Your task to perform on an android device: Go to privacy settings Image 0: 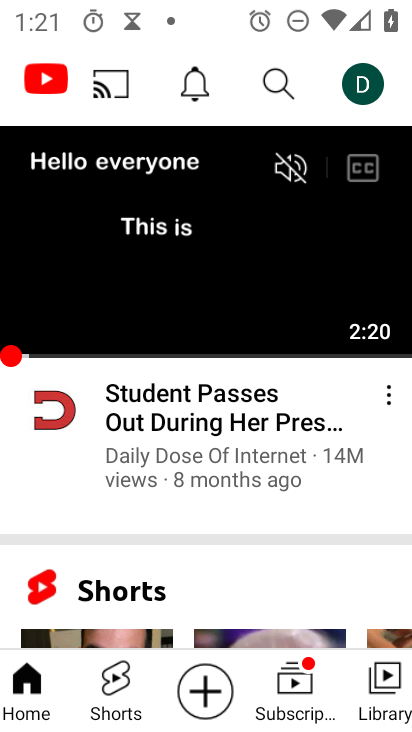
Step 0: press home button
Your task to perform on an android device: Go to privacy settings Image 1: 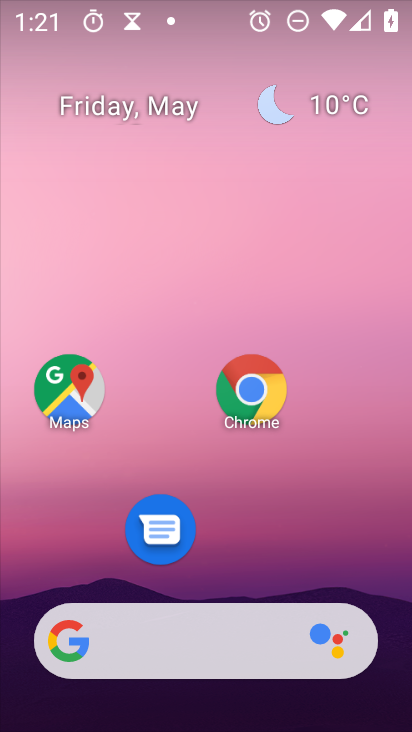
Step 1: drag from (231, 174) to (241, 97)
Your task to perform on an android device: Go to privacy settings Image 2: 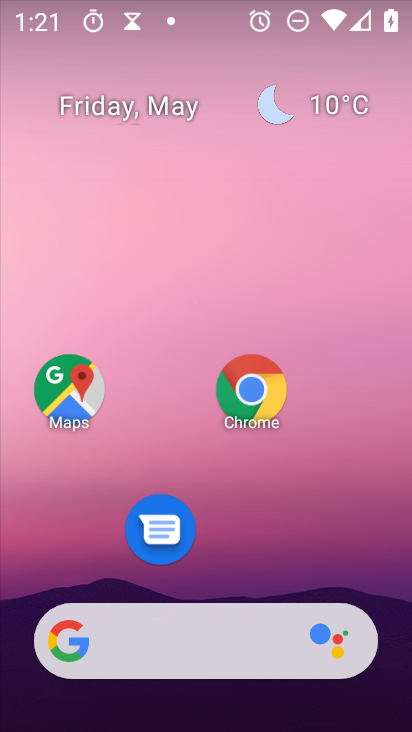
Step 2: drag from (197, 640) to (266, 89)
Your task to perform on an android device: Go to privacy settings Image 3: 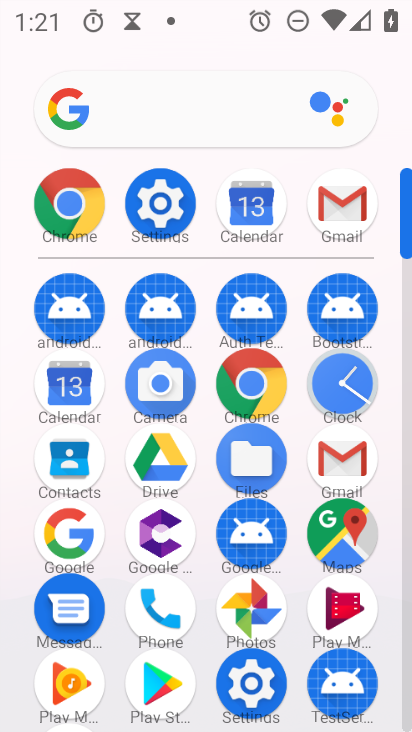
Step 3: click (156, 212)
Your task to perform on an android device: Go to privacy settings Image 4: 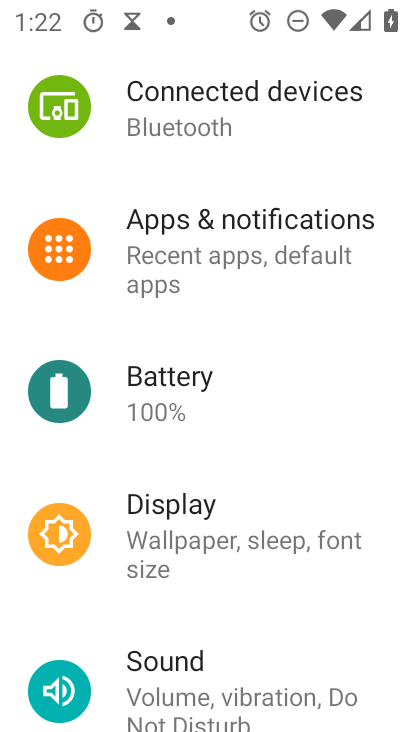
Step 4: drag from (269, 175) to (283, 528)
Your task to perform on an android device: Go to privacy settings Image 5: 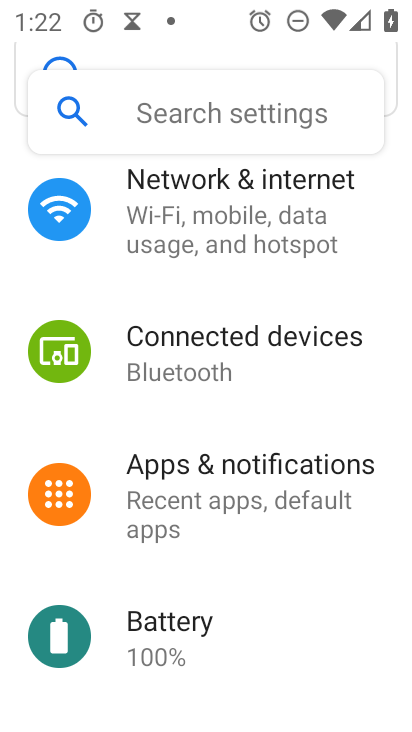
Step 5: drag from (202, 604) to (295, 110)
Your task to perform on an android device: Go to privacy settings Image 6: 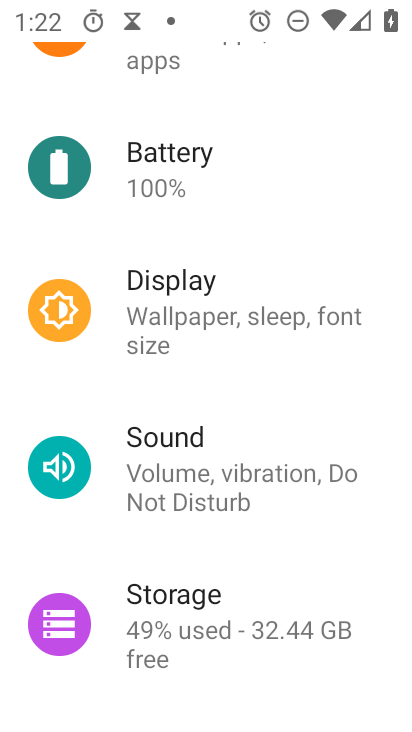
Step 6: drag from (180, 670) to (301, 141)
Your task to perform on an android device: Go to privacy settings Image 7: 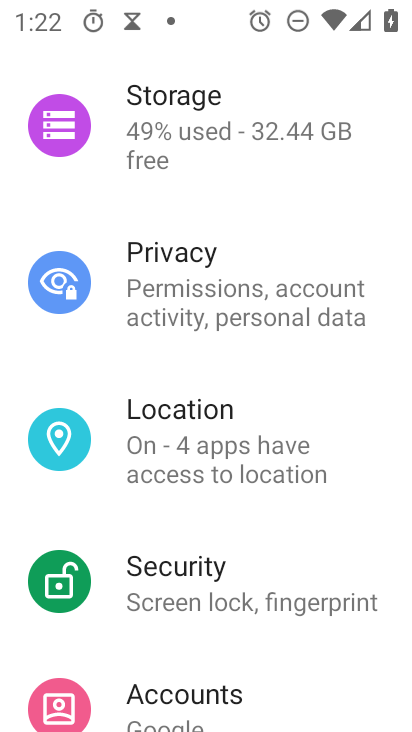
Step 7: click (181, 279)
Your task to perform on an android device: Go to privacy settings Image 8: 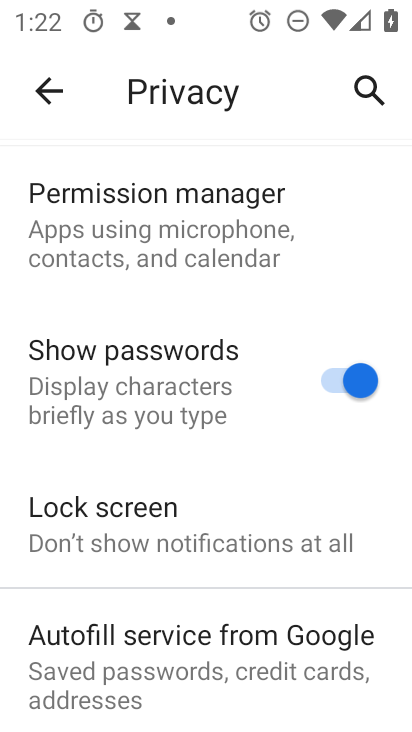
Step 8: task complete